Your task to perform on an android device: Go to internet settings Image 0: 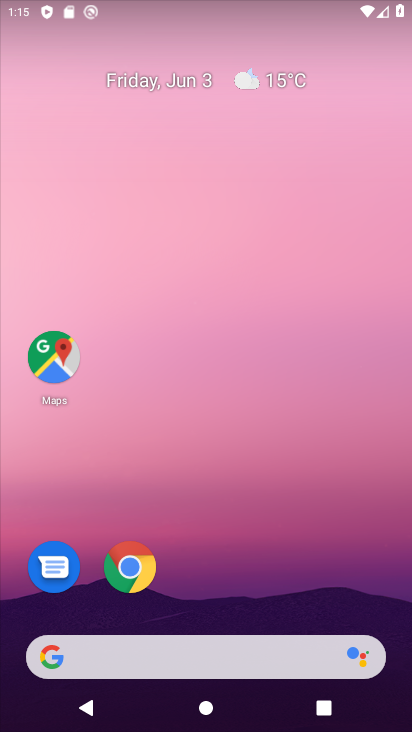
Step 0: drag from (239, 607) to (219, 86)
Your task to perform on an android device: Go to internet settings Image 1: 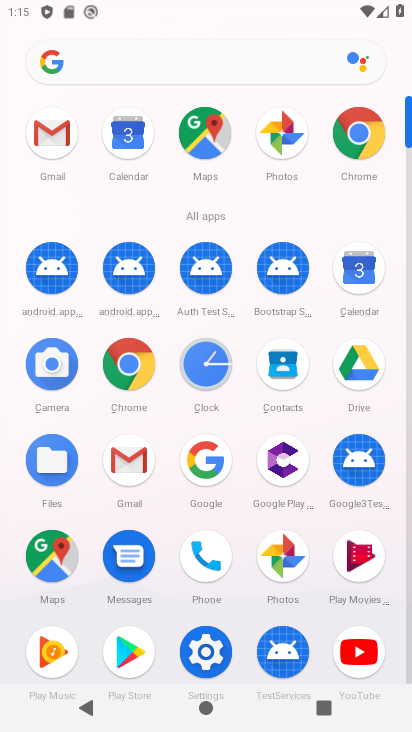
Step 1: click (206, 644)
Your task to perform on an android device: Go to internet settings Image 2: 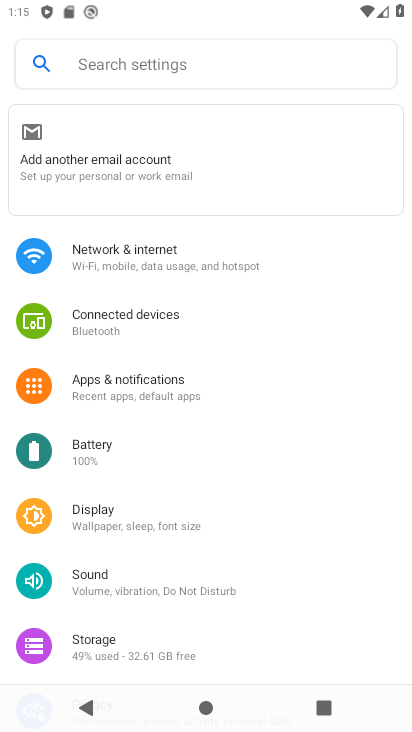
Step 2: click (152, 254)
Your task to perform on an android device: Go to internet settings Image 3: 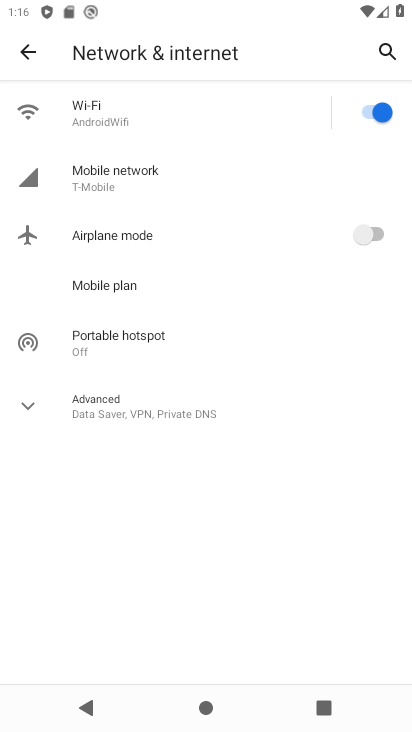
Step 3: task complete